Your task to perform on an android device: open app "Walmart Shopping & Grocery" (install if not already installed) and enter user name: "Hans@icloud.com" and password: "executing" Image 0: 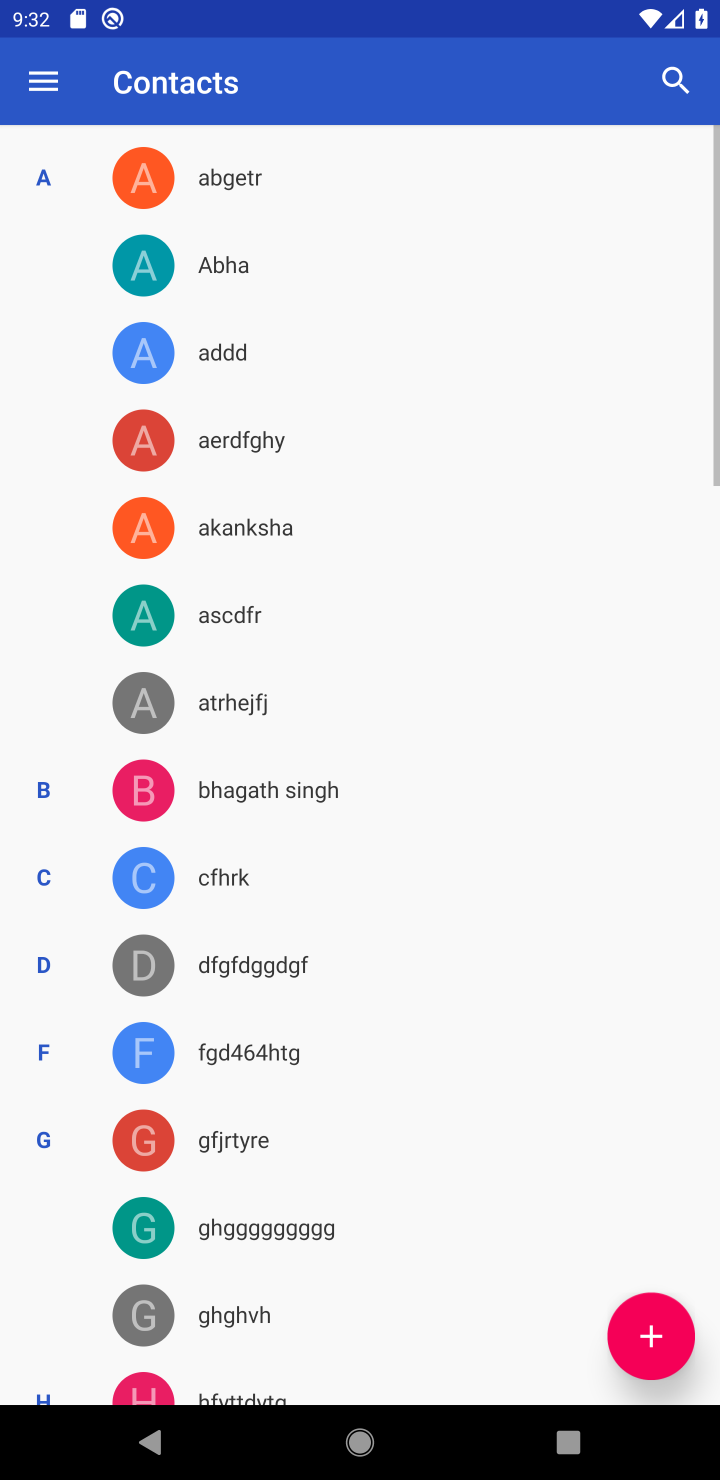
Step 0: press home button
Your task to perform on an android device: open app "Walmart Shopping & Grocery" (install if not already installed) and enter user name: "Hans@icloud.com" and password: "executing" Image 1: 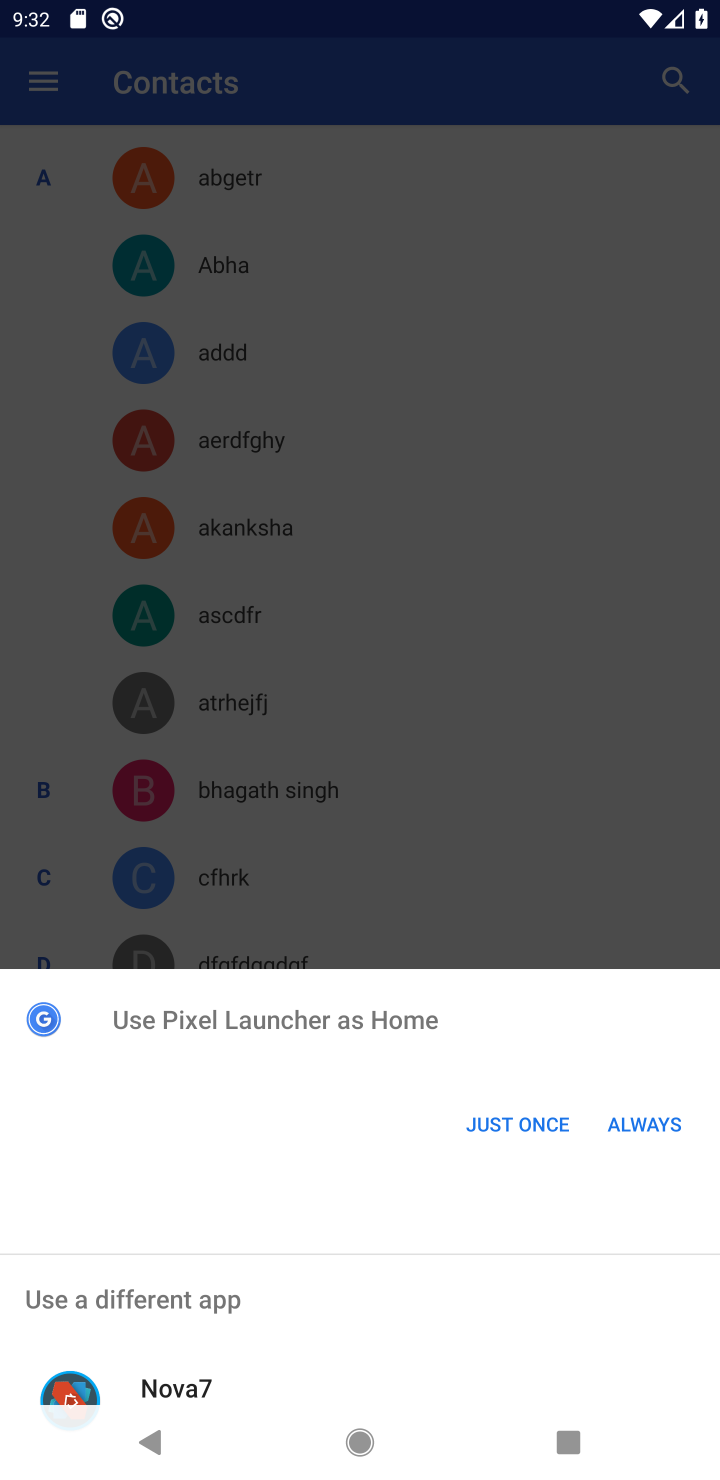
Step 1: press home button
Your task to perform on an android device: open app "Walmart Shopping & Grocery" (install if not already installed) and enter user name: "Hans@icloud.com" and password: "executing" Image 2: 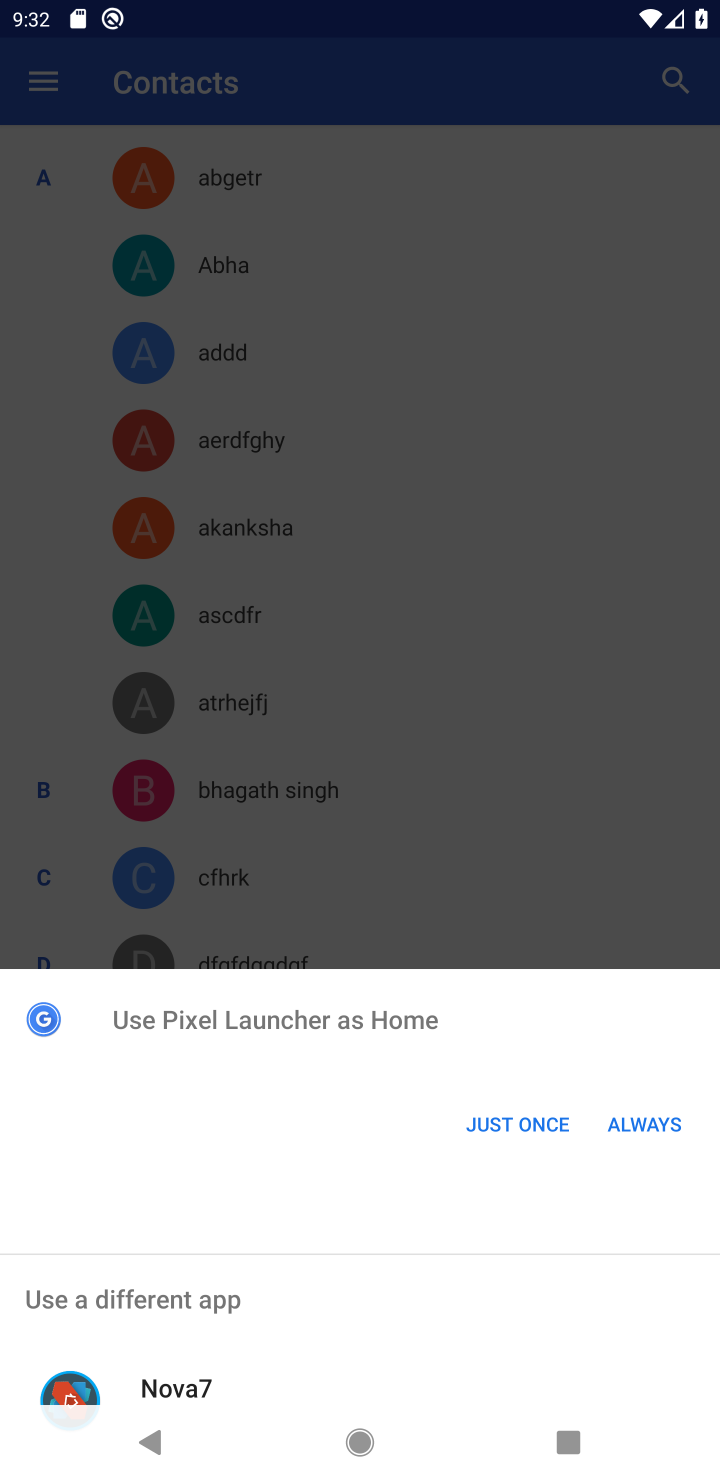
Step 2: press home button
Your task to perform on an android device: open app "Walmart Shopping & Grocery" (install if not already installed) and enter user name: "Hans@icloud.com" and password: "executing" Image 3: 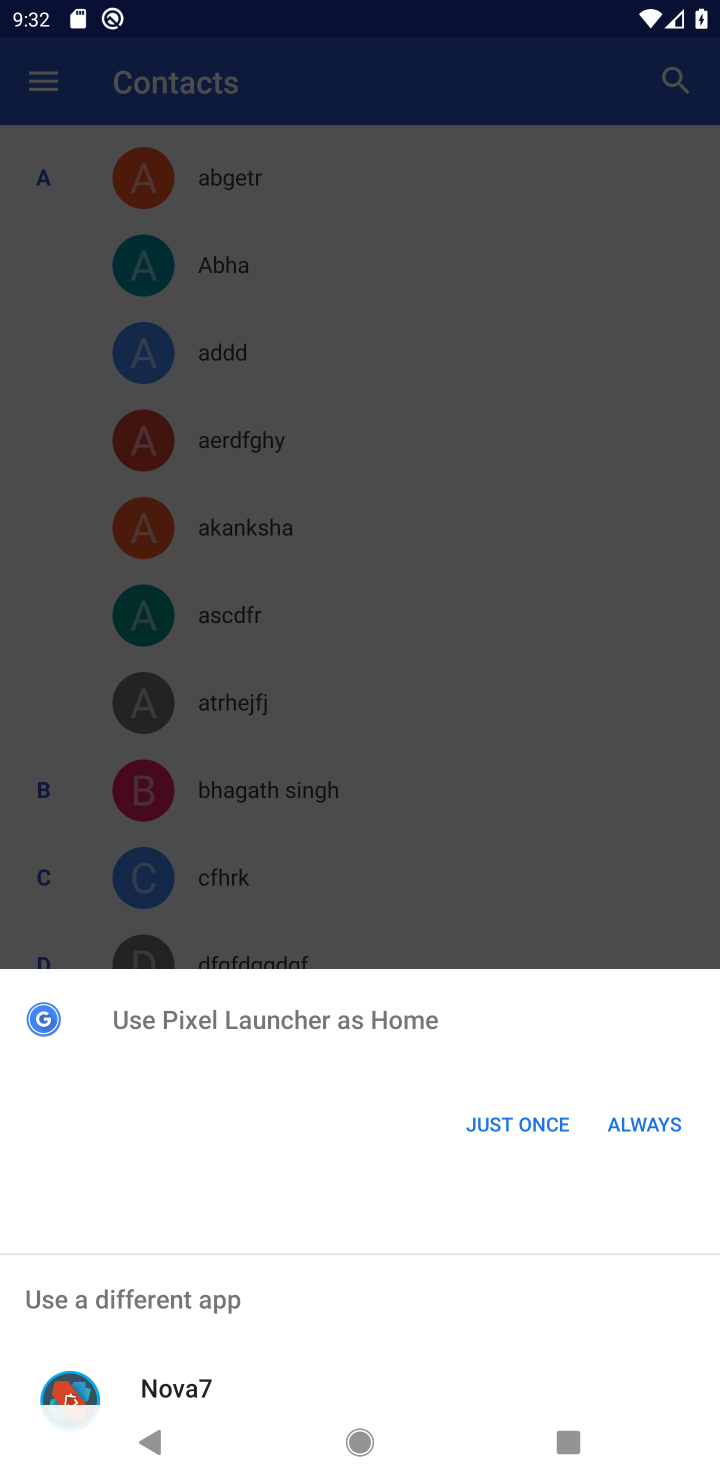
Step 3: press home button
Your task to perform on an android device: open app "Walmart Shopping & Grocery" (install if not already installed) and enter user name: "Hans@icloud.com" and password: "executing" Image 4: 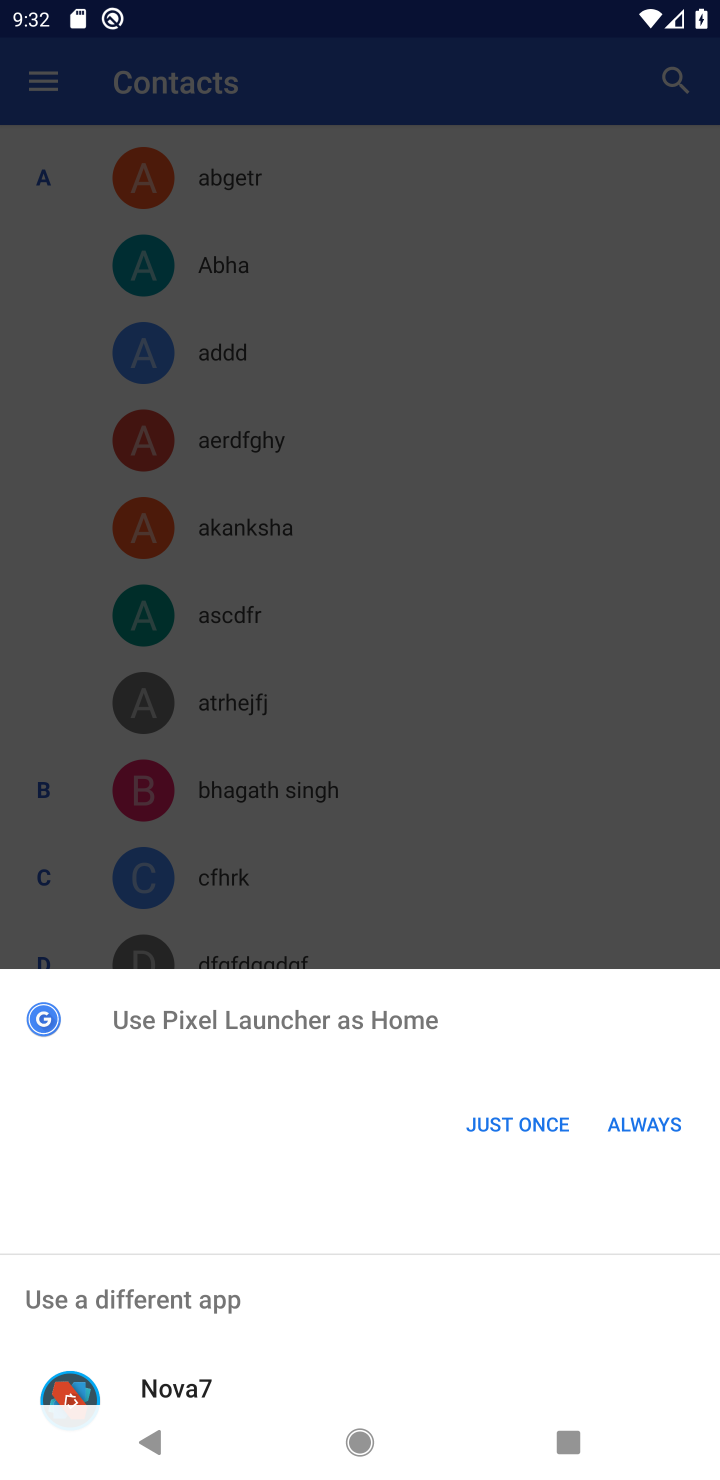
Step 4: click (541, 1144)
Your task to perform on an android device: open app "Walmart Shopping & Grocery" (install if not already installed) and enter user name: "Hans@icloud.com" and password: "executing" Image 5: 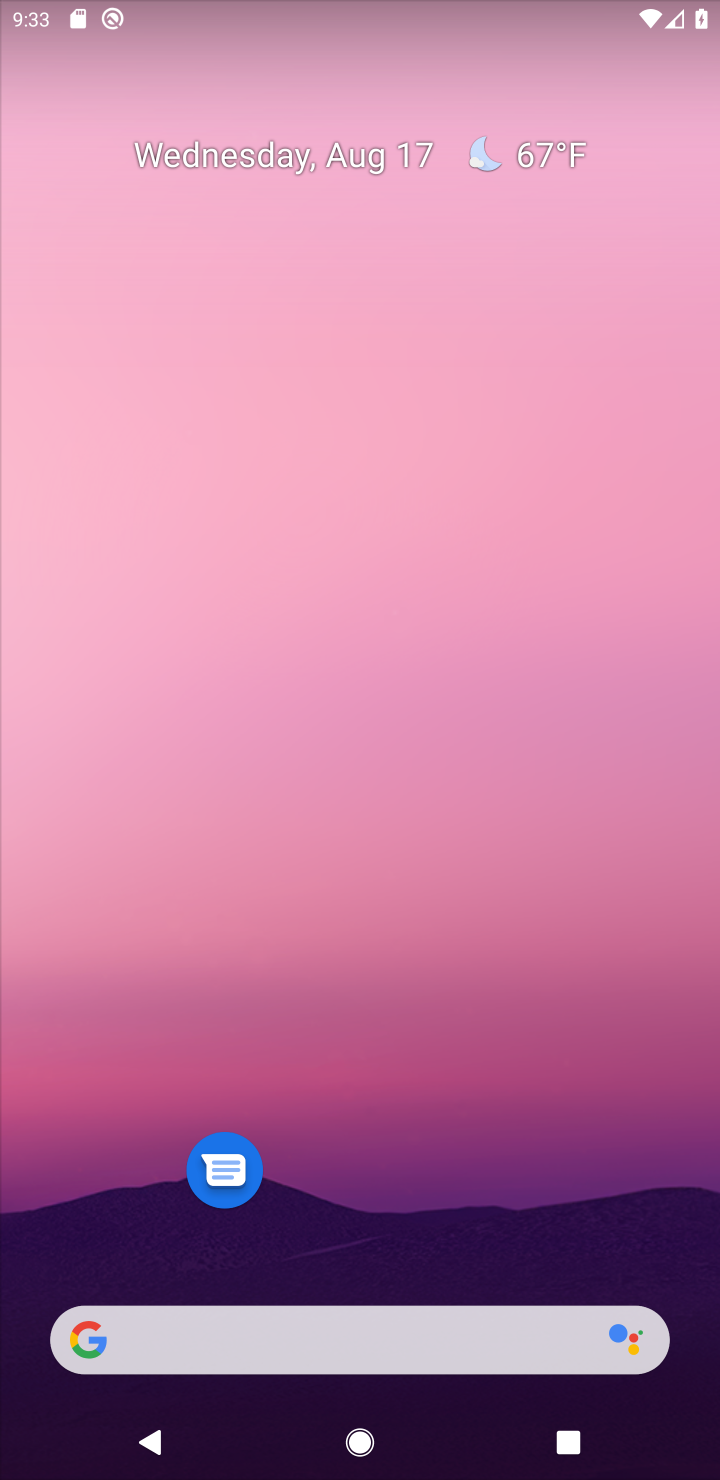
Step 5: drag from (398, 1281) to (307, 183)
Your task to perform on an android device: open app "Walmart Shopping & Grocery" (install if not already installed) and enter user name: "Hans@icloud.com" and password: "executing" Image 6: 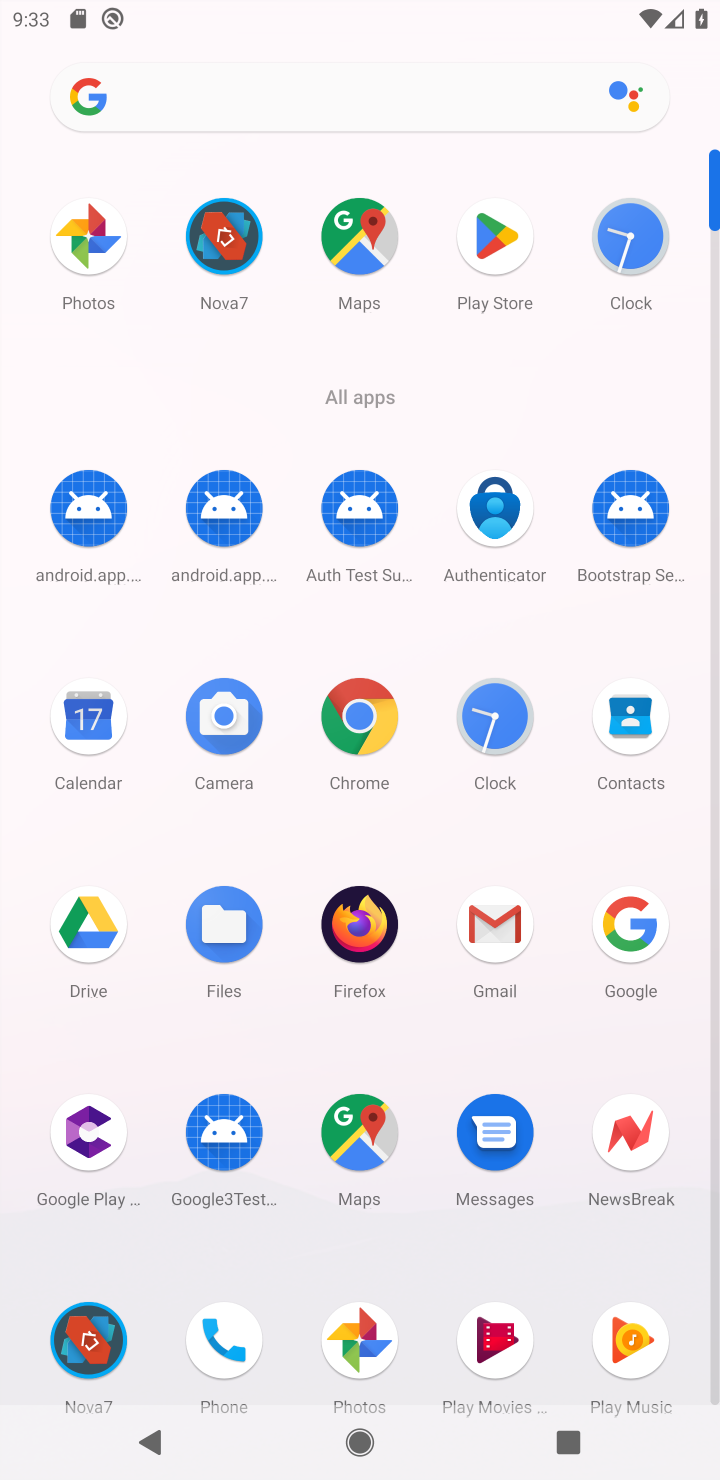
Step 6: click (496, 254)
Your task to perform on an android device: open app "Walmart Shopping & Grocery" (install if not already installed) and enter user name: "Hans@icloud.com" and password: "executing" Image 7: 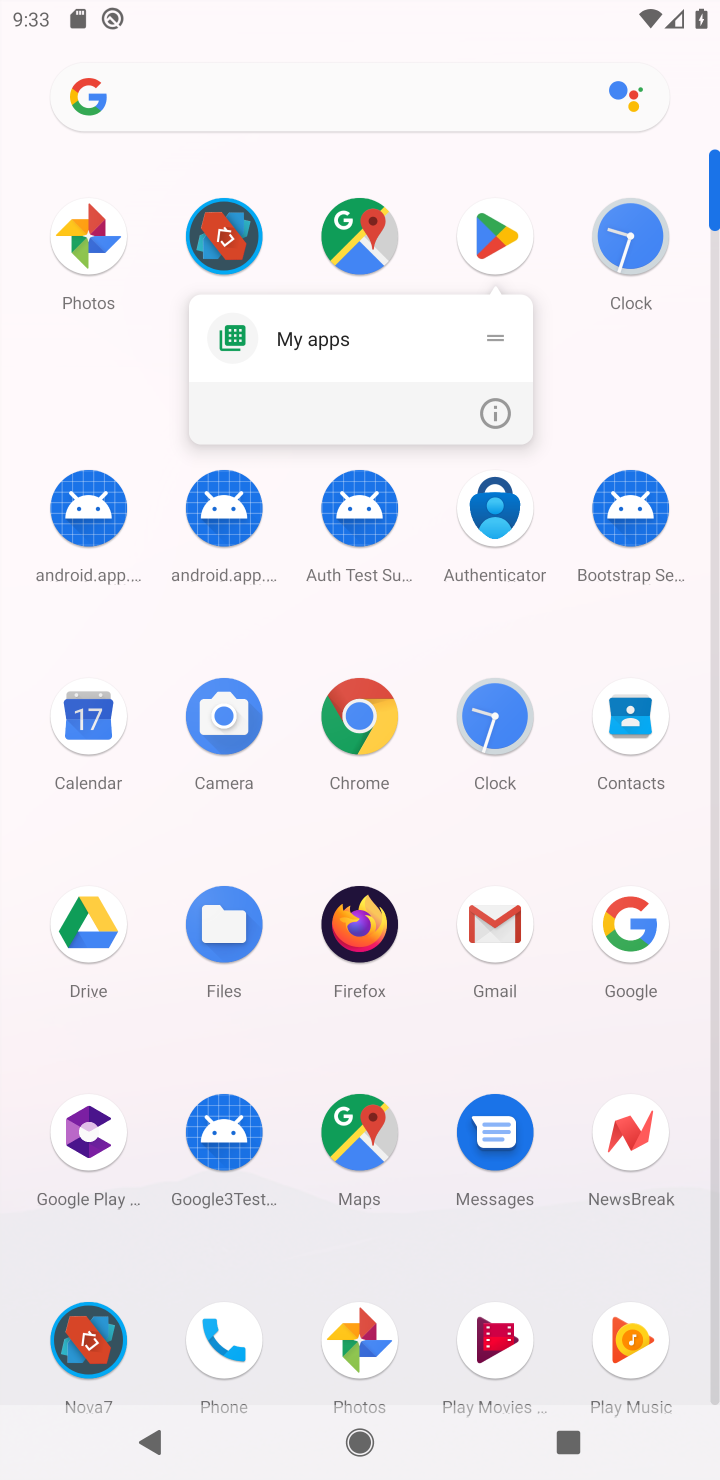
Step 7: click (496, 203)
Your task to perform on an android device: open app "Walmart Shopping & Grocery" (install if not already installed) and enter user name: "Hans@icloud.com" and password: "executing" Image 8: 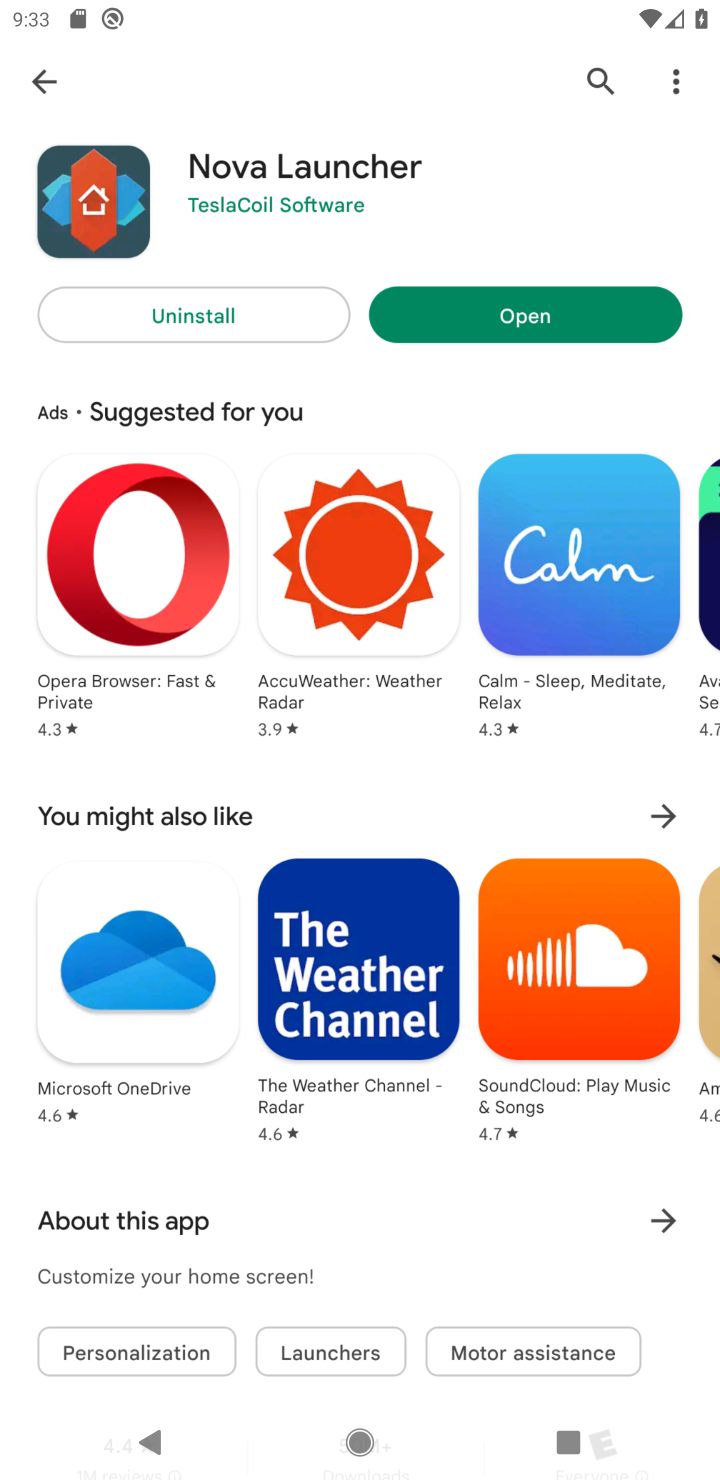
Step 8: click (22, 84)
Your task to perform on an android device: open app "Walmart Shopping & Grocery" (install if not already installed) and enter user name: "Hans@icloud.com" and password: "executing" Image 9: 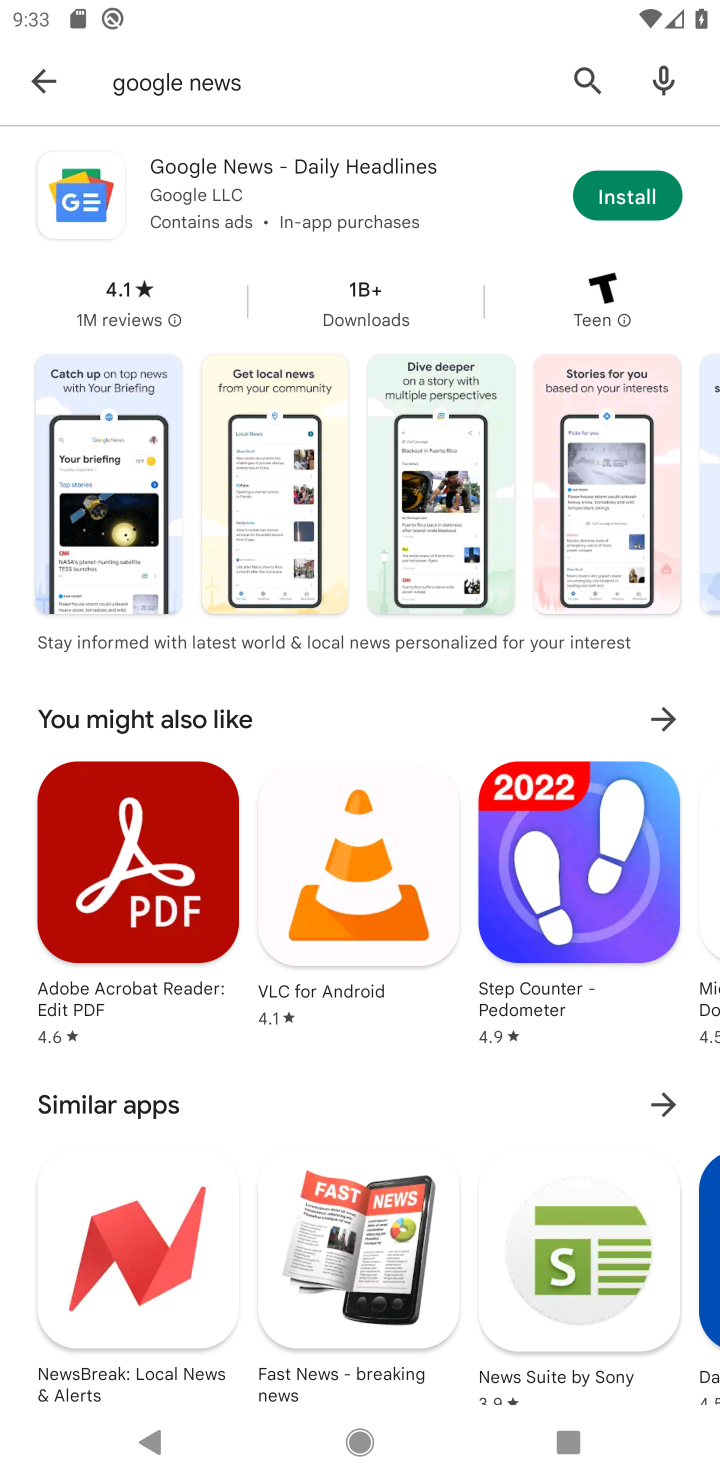
Step 9: click (22, 84)
Your task to perform on an android device: open app "Walmart Shopping & Grocery" (install if not already installed) and enter user name: "Hans@icloud.com" and password: "executing" Image 10: 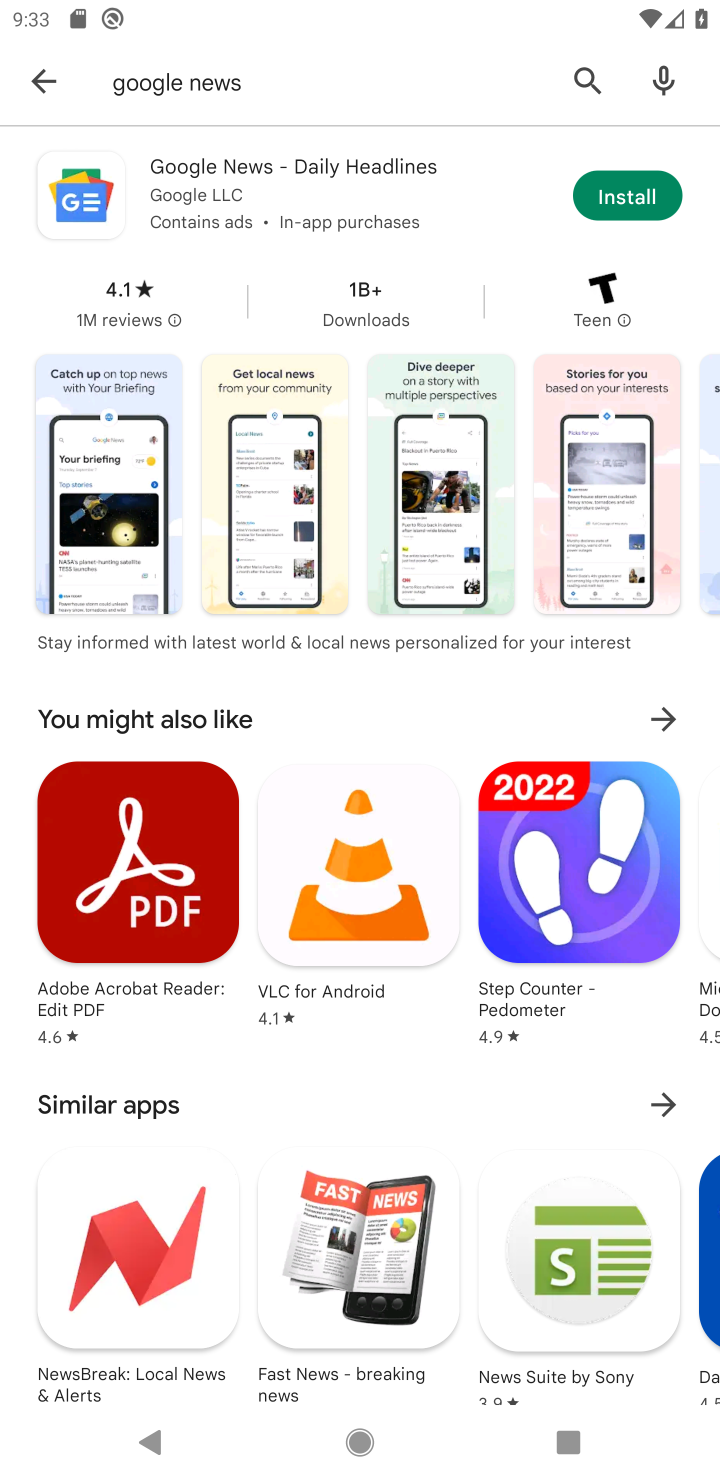
Step 10: click (573, 78)
Your task to perform on an android device: open app "Walmart Shopping & Grocery" (install if not already installed) and enter user name: "Hans@icloud.com" and password: "executing" Image 11: 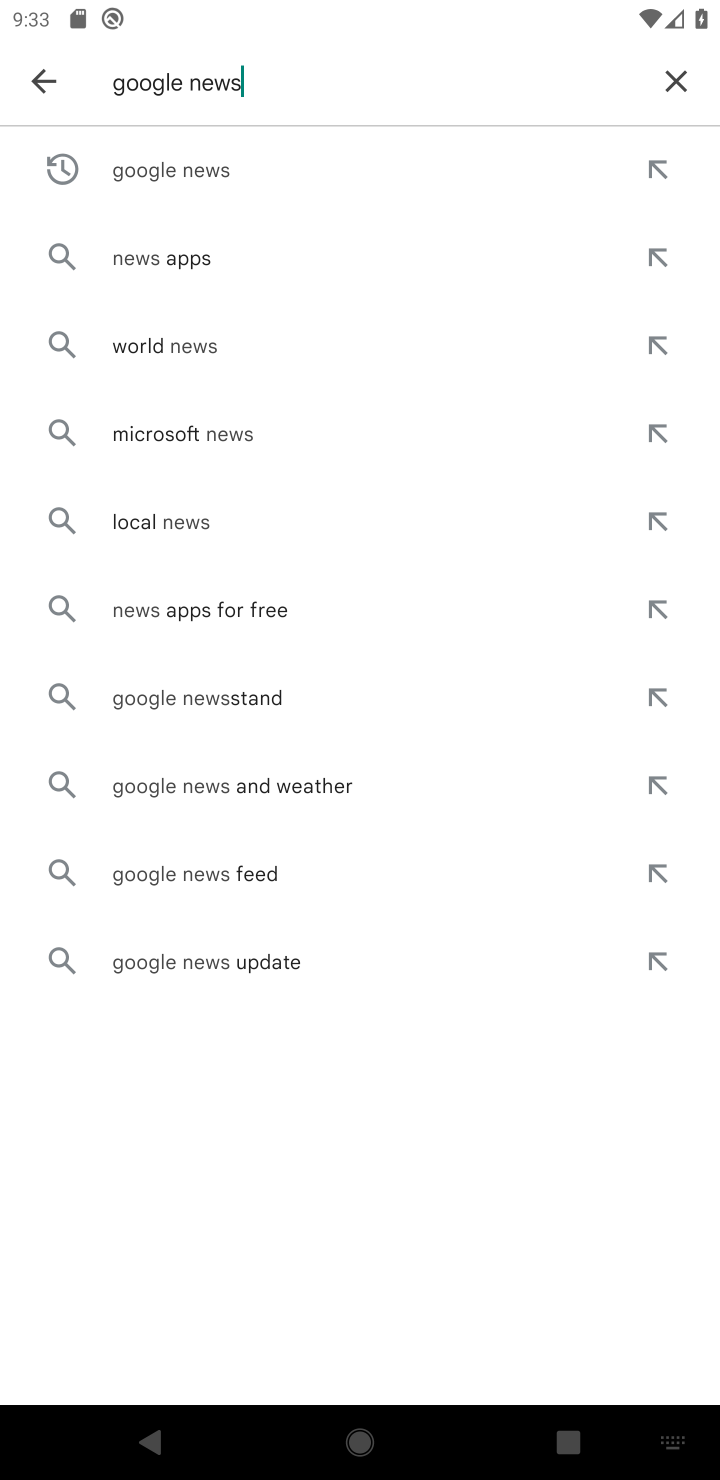
Step 11: click (658, 77)
Your task to perform on an android device: open app "Walmart Shopping & Grocery" (install if not already installed) and enter user name: "Hans@icloud.com" and password: "executing" Image 12: 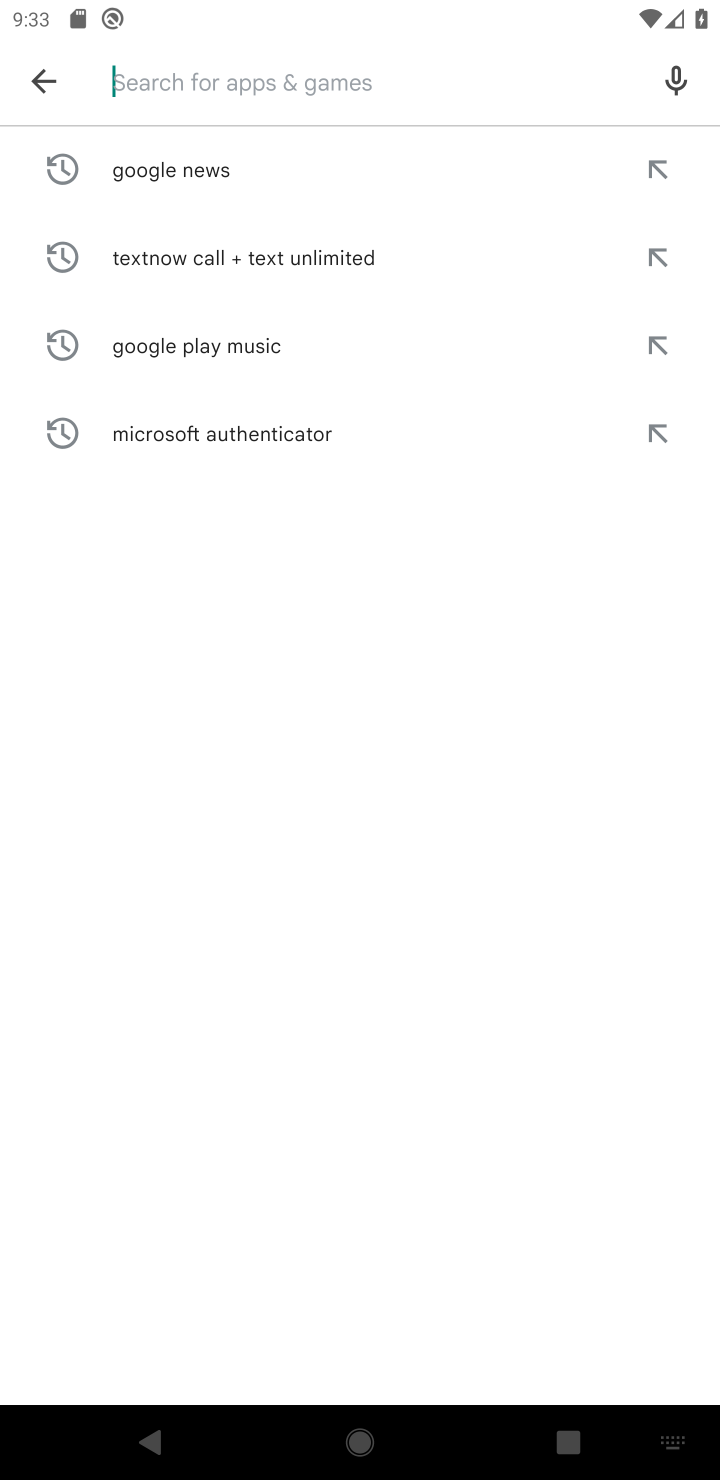
Step 12: type "Walmart Shopping & Grocery"
Your task to perform on an android device: open app "Walmart Shopping & Grocery" (install if not already installed) and enter user name: "Hans@icloud.com" and password: "executing" Image 13: 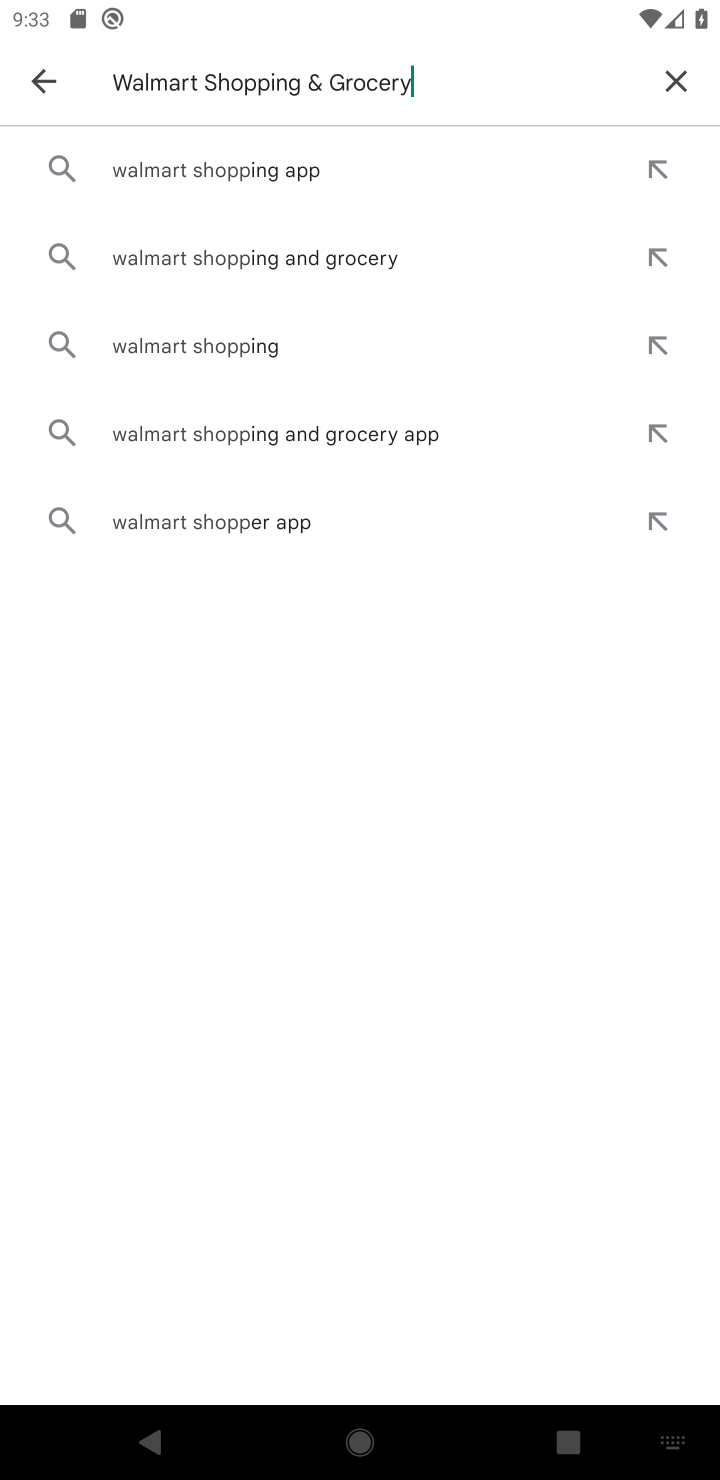
Step 13: type ""
Your task to perform on an android device: open app "Walmart Shopping & Grocery" (install if not already installed) and enter user name: "Hans@icloud.com" and password: "executing" Image 14: 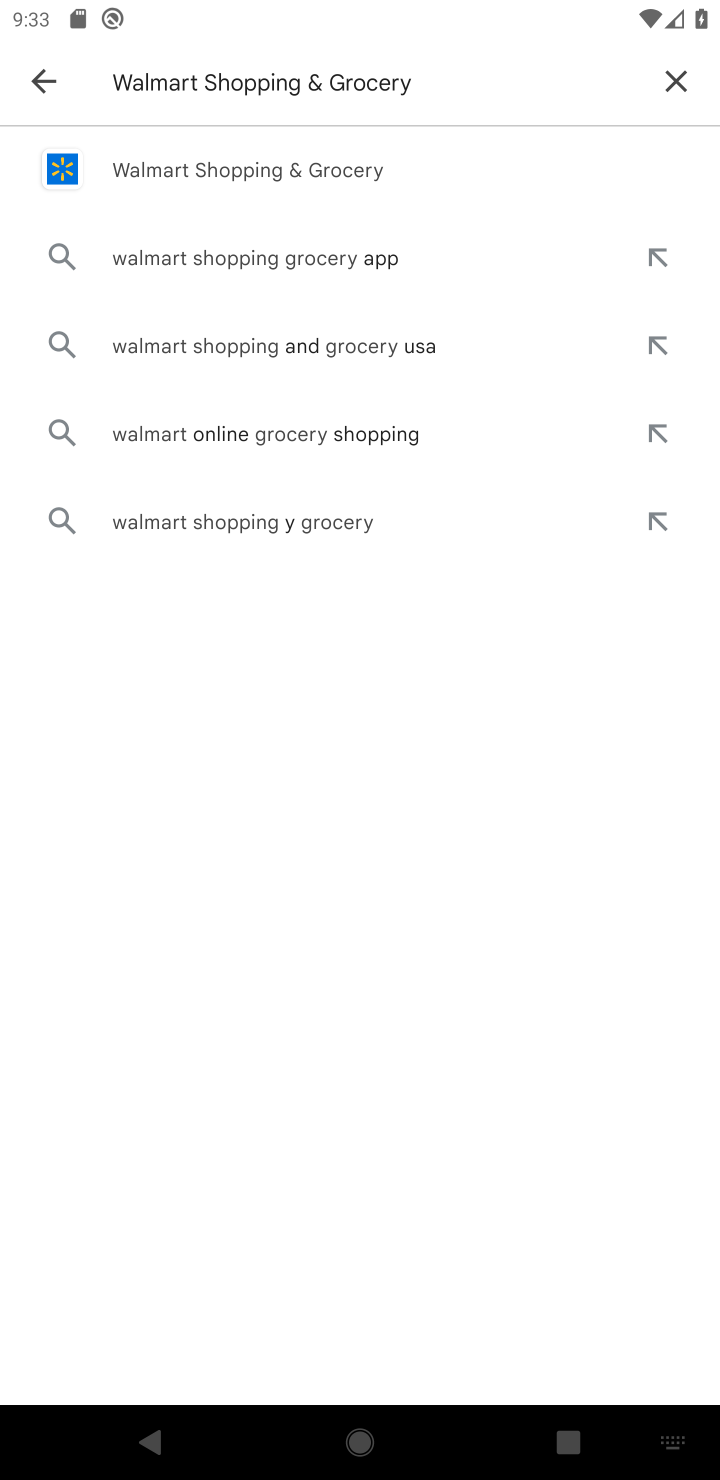
Step 14: click (143, 179)
Your task to perform on an android device: open app "Walmart Shopping & Grocery" (install if not already installed) and enter user name: "Hans@icloud.com" and password: "executing" Image 15: 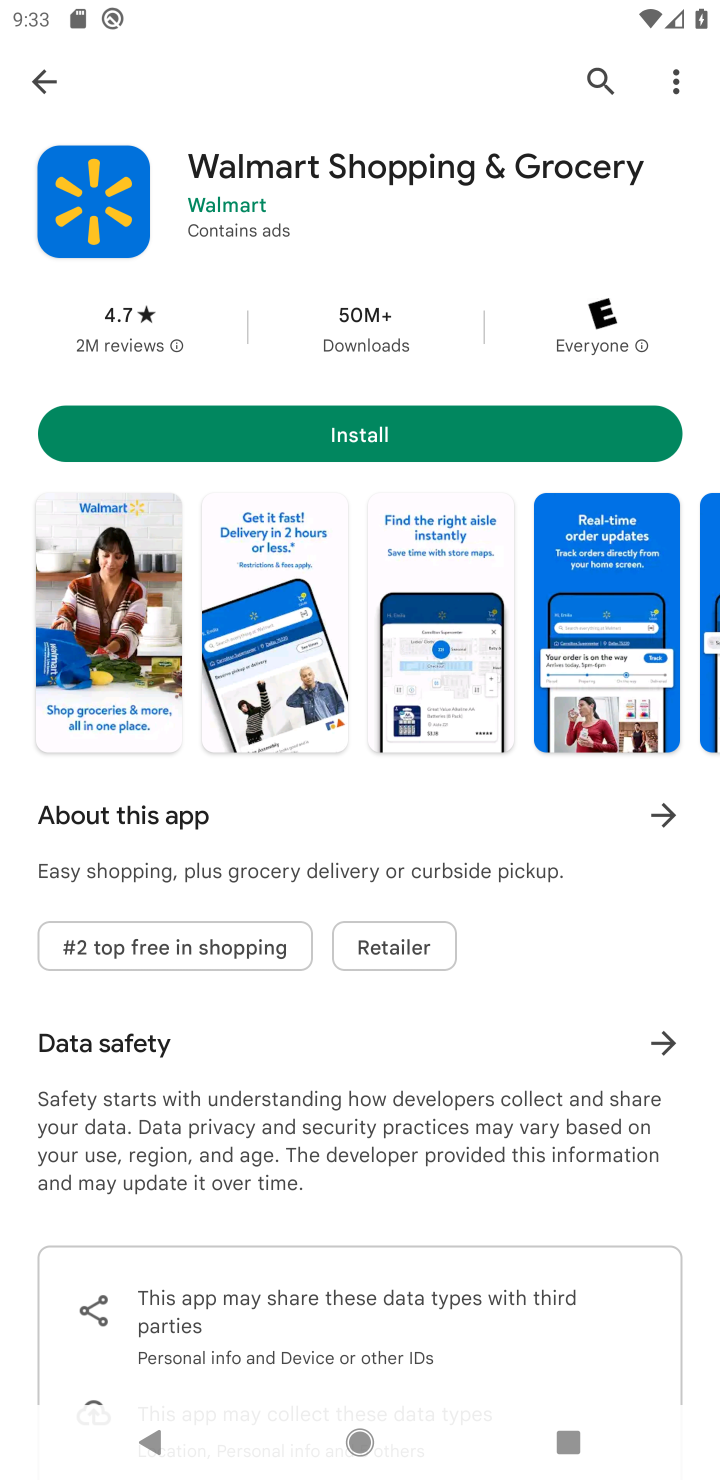
Step 15: click (304, 422)
Your task to perform on an android device: open app "Walmart Shopping & Grocery" (install if not already installed) and enter user name: "Hans@icloud.com" and password: "executing" Image 16: 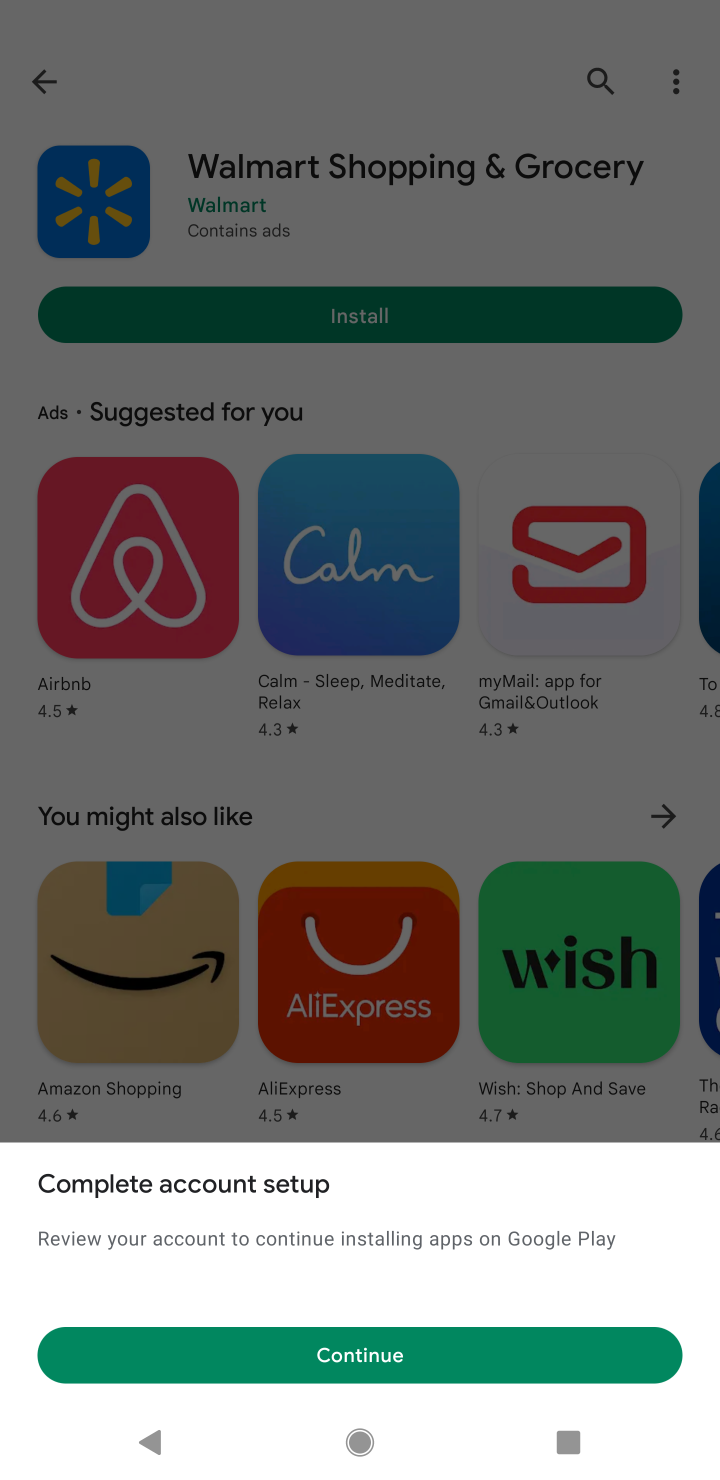
Step 16: click (534, 1378)
Your task to perform on an android device: open app "Walmart Shopping & Grocery" (install if not already installed) and enter user name: "Hans@icloud.com" and password: "executing" Image 17: 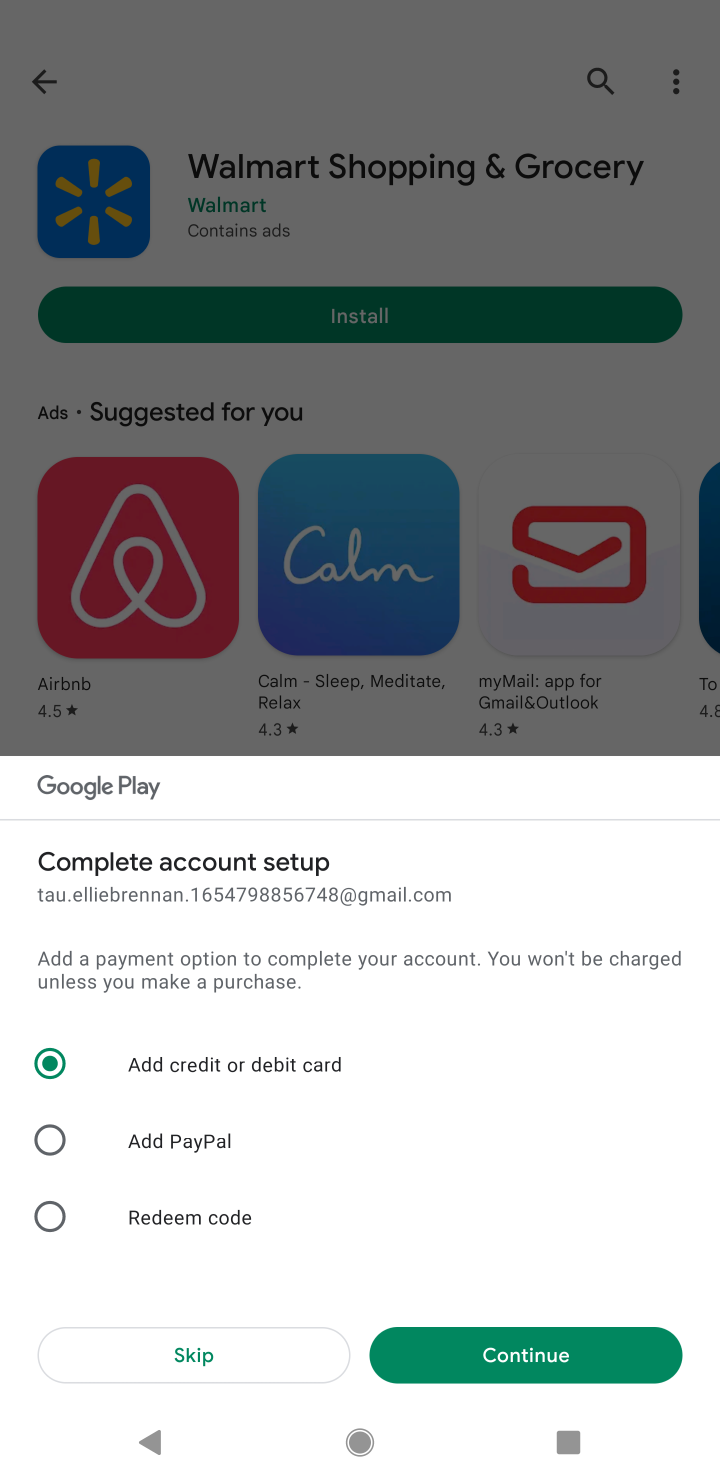
Step 17: click (178, 1351)
Your task to perform on an android device: open app "Walmart Shopping & Grocery" (install if not already installed) and enter user name: "Hans@icloud.com" and password: "executing" Image 18: 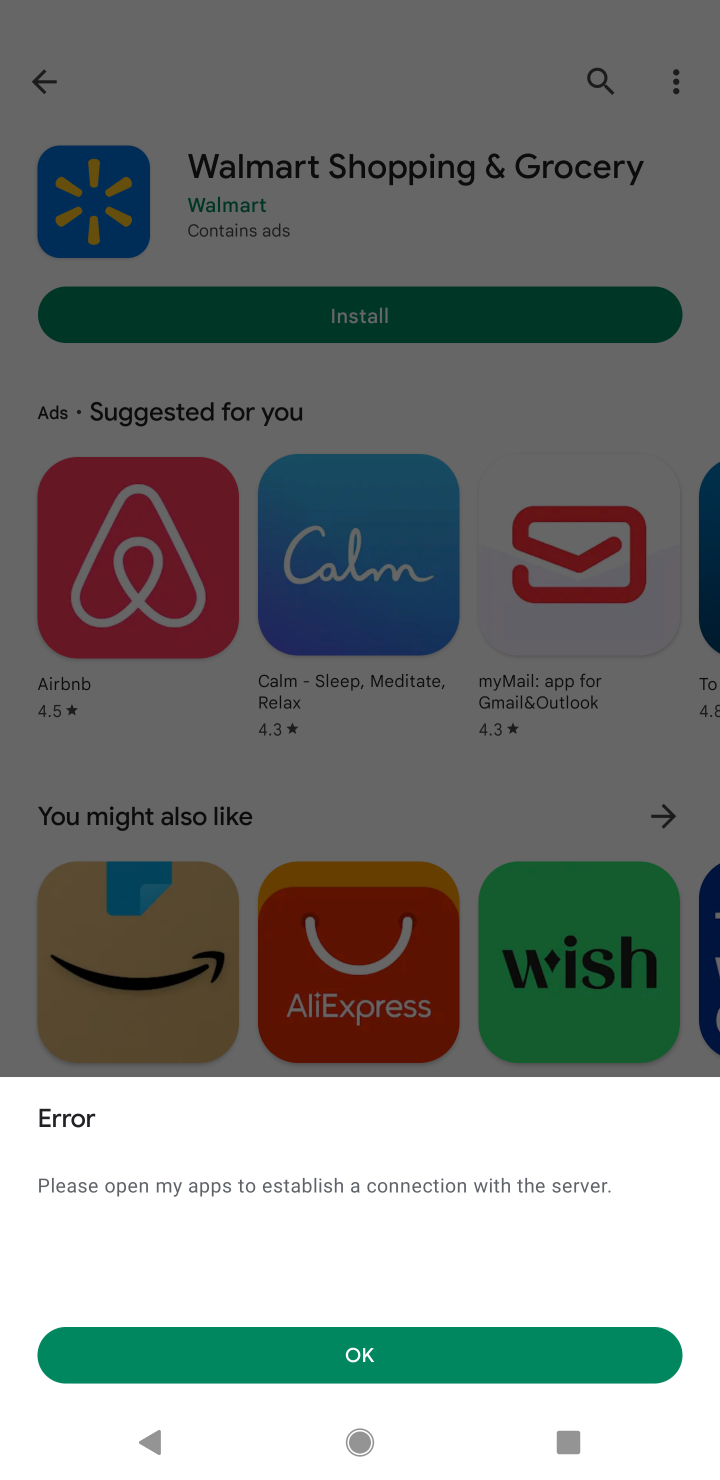
Step 18: click (175, 1363)
Your task to perform on an android device: open app "Walmart Shopping & Grocery" (install if not already installed) and enter user name: "Hans@icloud.com" and password: "executing" Image 19: 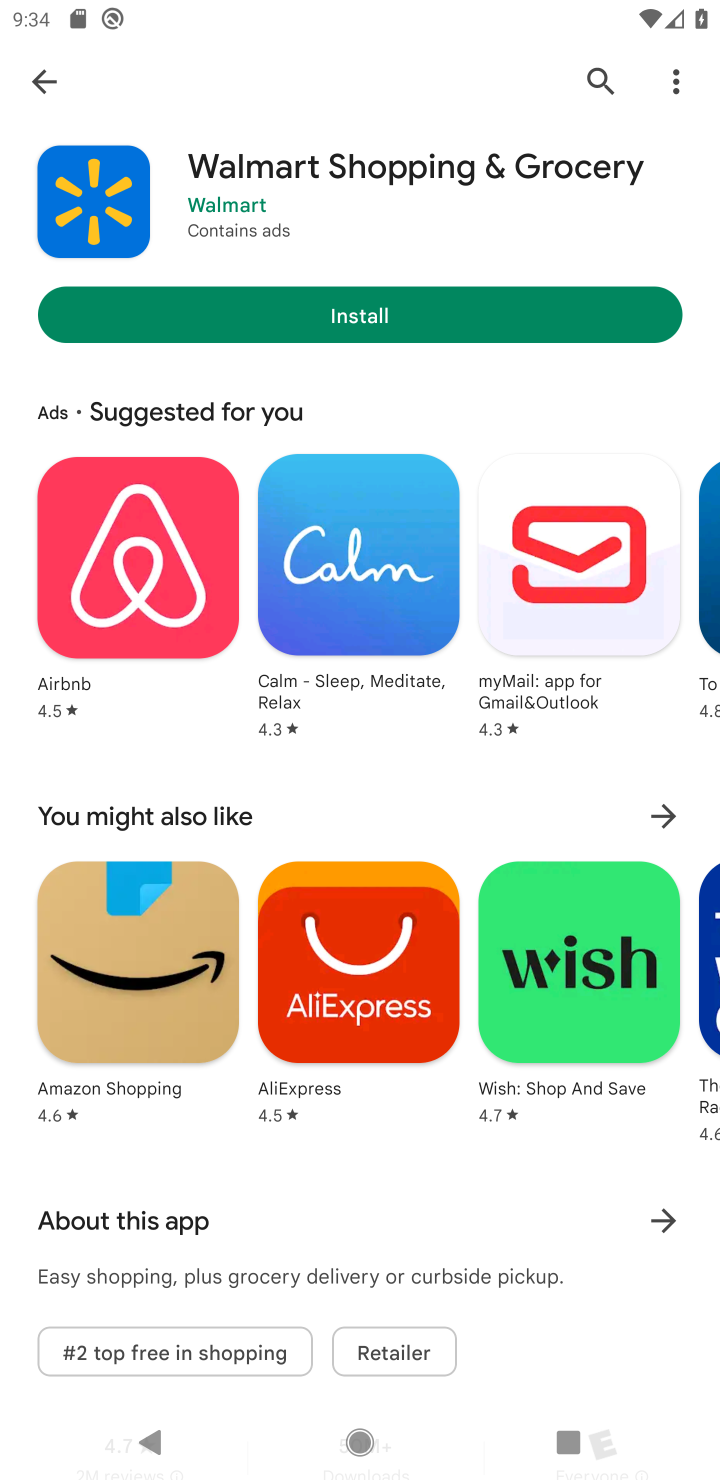
Step 19: click (236, 322)
Your task to perform on an android device: open app "Walmart Shopping & Grocery" (install if not already installed) and enter user name: "Hans@icloud.com" and password: "executing" Image 20: 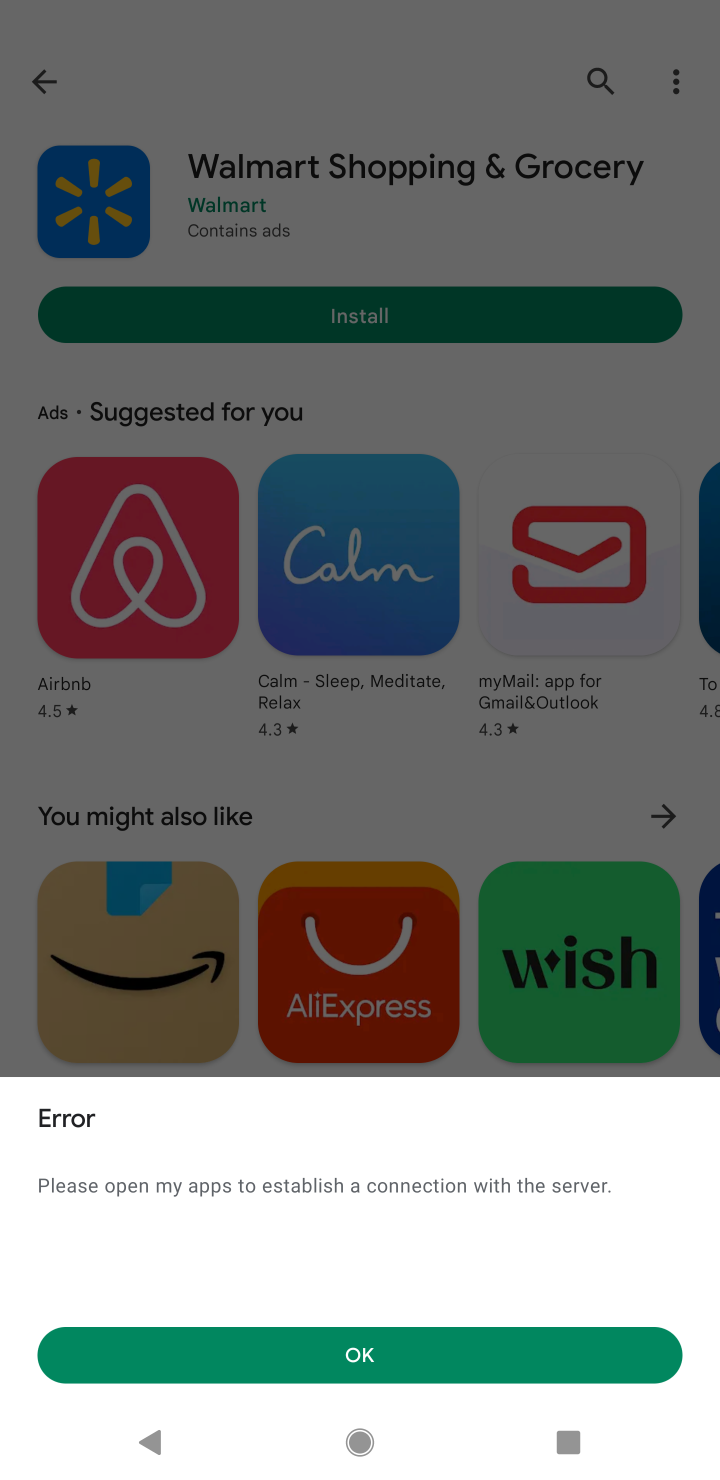
Step 20: click (473, 1365)
Your task to perform on an android device: open app "Walmart Shopping & Grocery" (install if not already installed) and enter user name: "Hans@icloud.com" and password: "executing" Image 21: 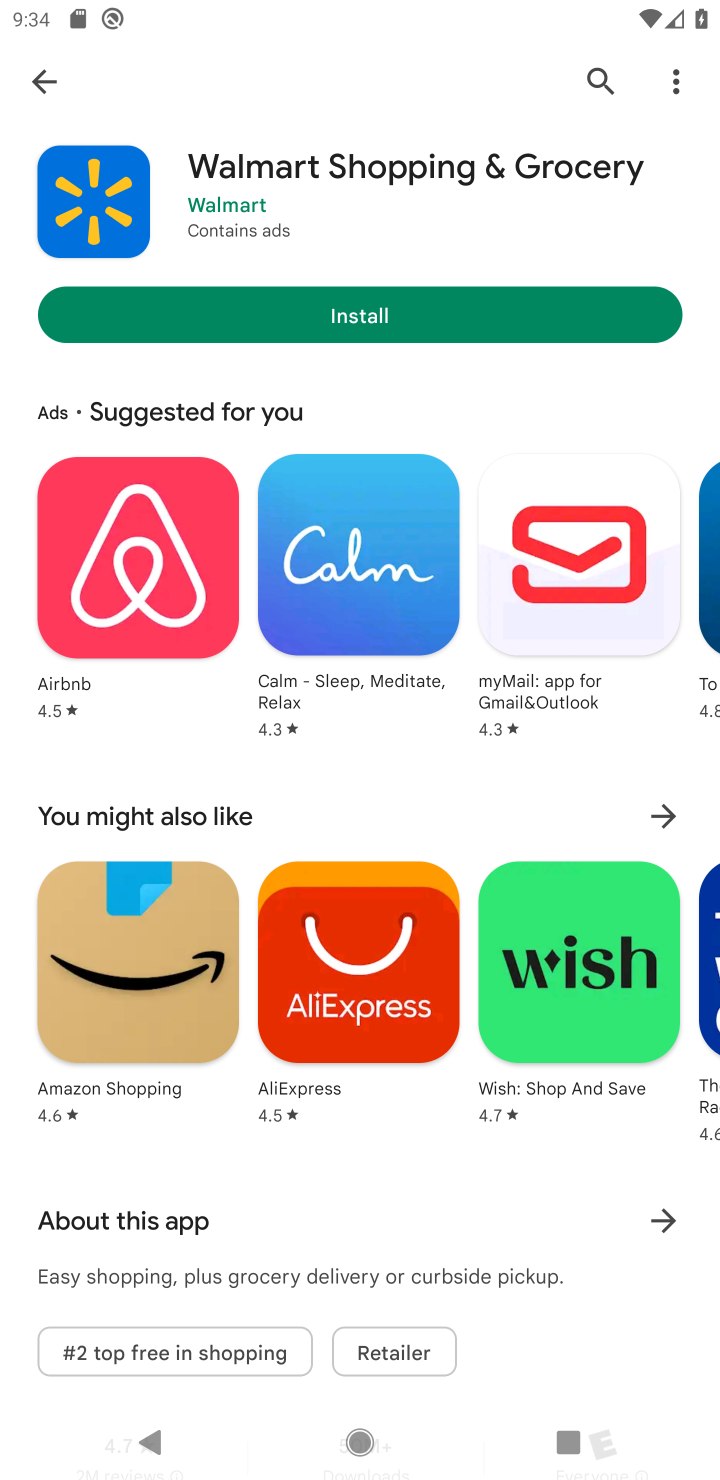
Step 21: task complete